Your task to perform on an android device: Search for Italian restaurants on Maps Image 0: 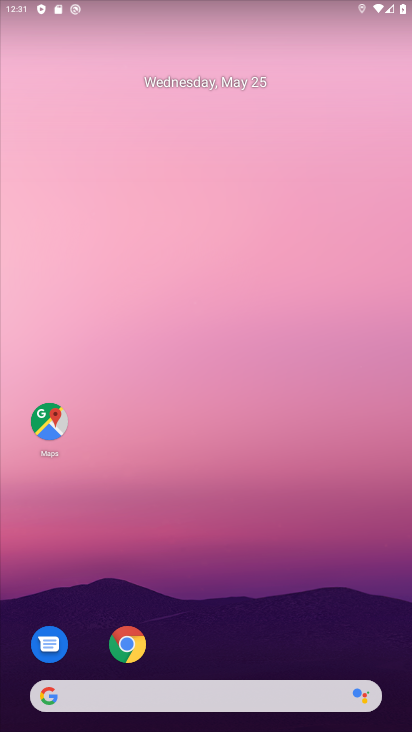
Step 0: click (48, 431)
Your task to perform on an android device: Search for Italian restaurants on Maps Image 1: 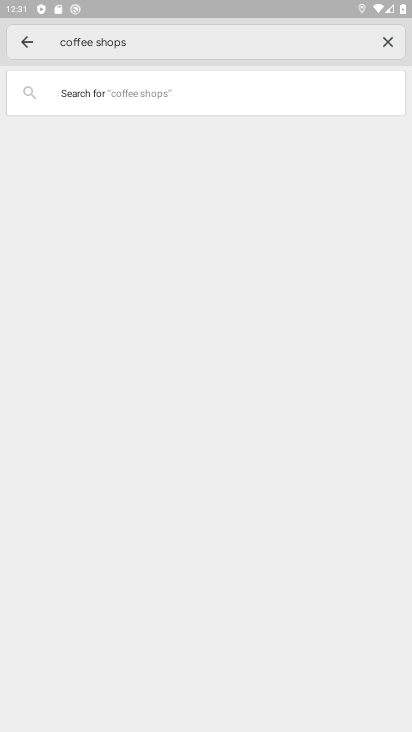
Step 1: click (385, 42)
Your task to perform on an android device: Search for Italian restaurants on Maps Image 2: 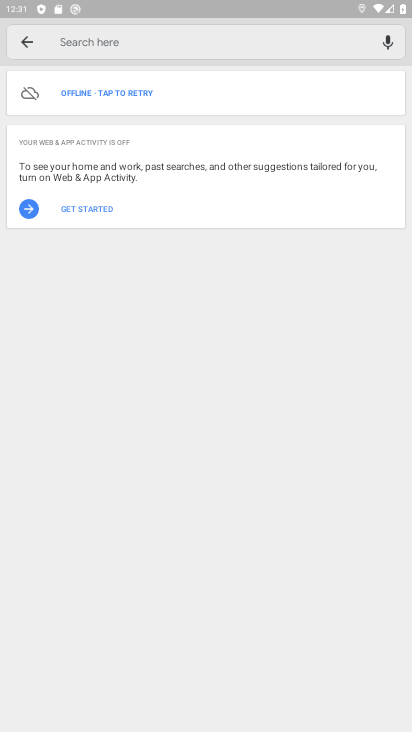
Step 2: click (13, 41)
Your task to perform on an android device: Search for Italian restaurants on Maps Image 3: 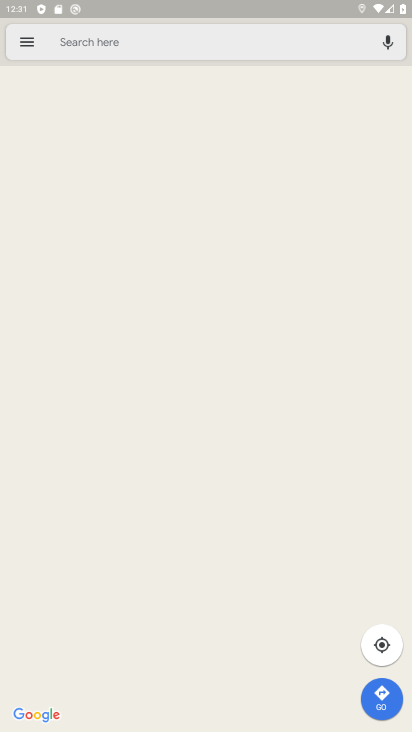
Step 3: click (79, 37)
Your task to perform on an android device: Search for Italian restaurants on Maps Image 4: 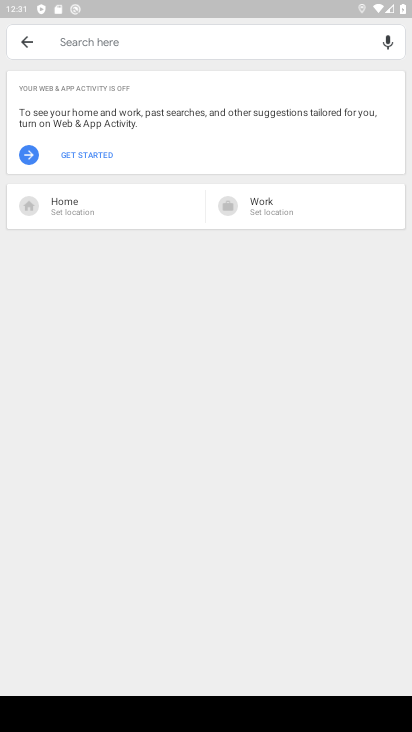
Step 4: type "italian restaurants"
Your task to perform on an android device: Search for Italian restaurants on Maps Image 5: 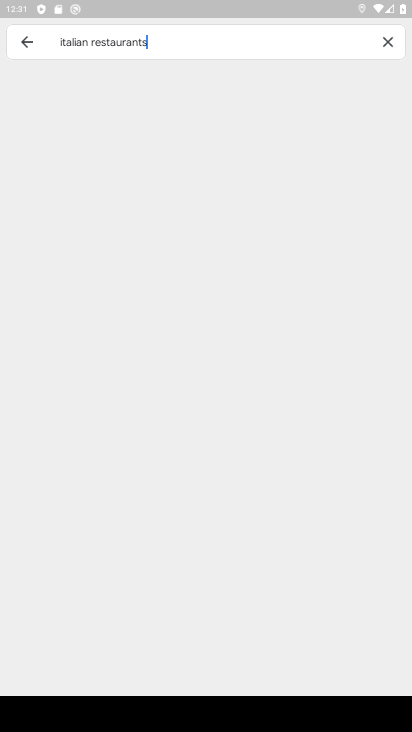
Step 5: task complete